Your task to perform on an android device: Show me recent news Image 0: 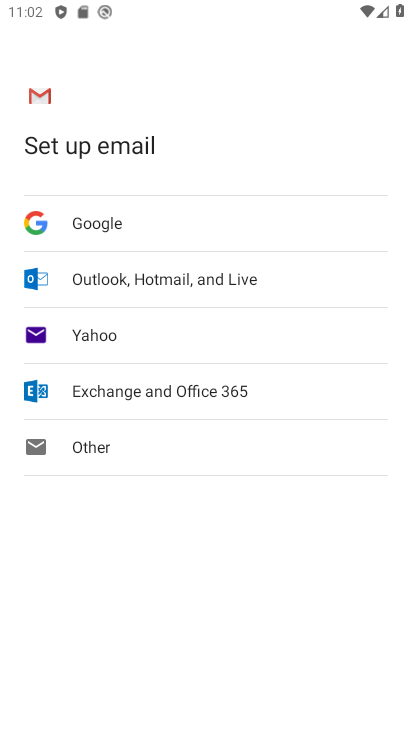
Step 0: press home button
Your task to perform on an android device: Show me recent news Image 1: 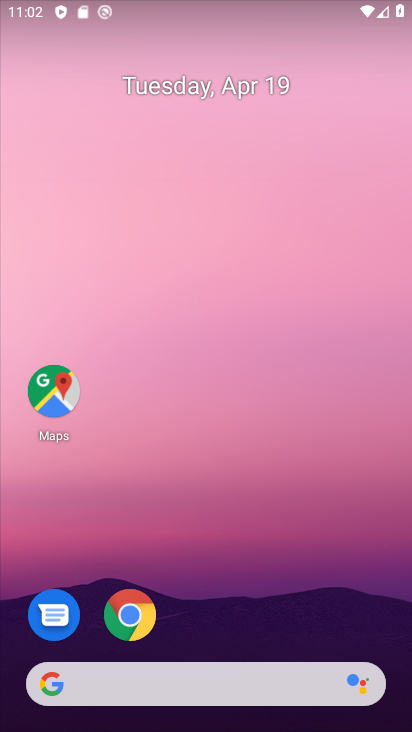
Step 1: drag from (233, 608) to (259, 170)
Your task to perform on an android device: Show me recent news Image 2: 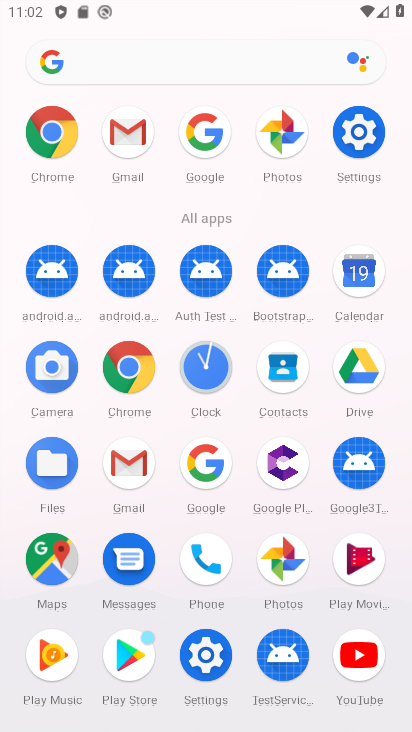
Step 2: click (187, 462)
Your task to perform on an android device: Show me recent news Image 3: 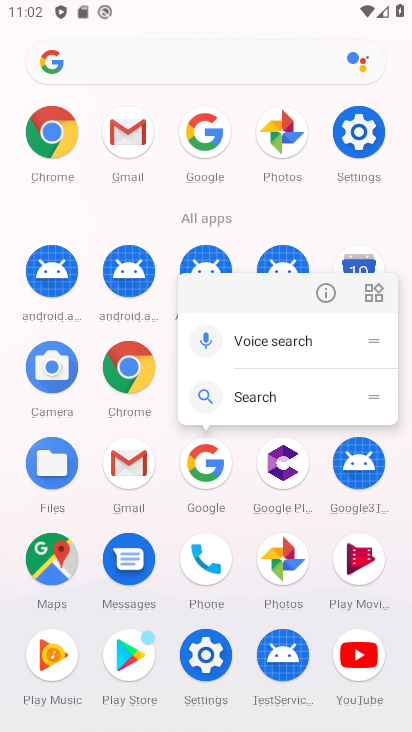
Step 3: click (209, 451)
Your task to perform on an android device: Show me recent news Image 4: 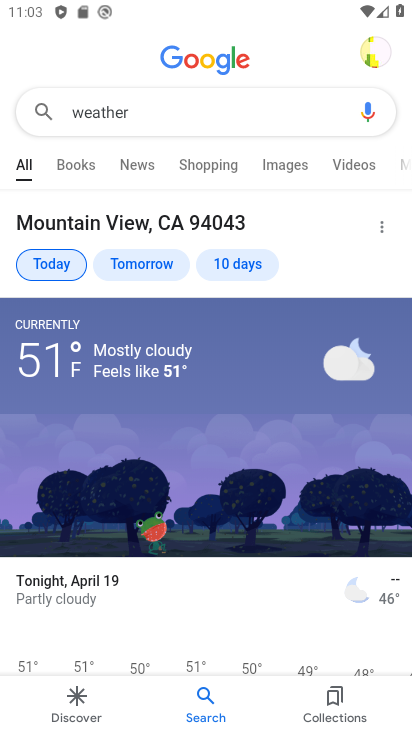
Step 4: drag from (217, 594) to (229, 295)
Your task to perform on an android device: Show me recent news Image 5: 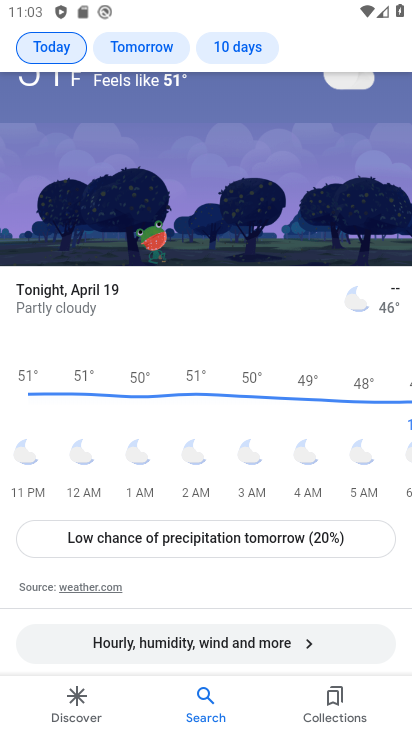
Step 5: drag from (238, 207) to (261, 411)
Your task to perform on an android device: Show me recent news Image 6: 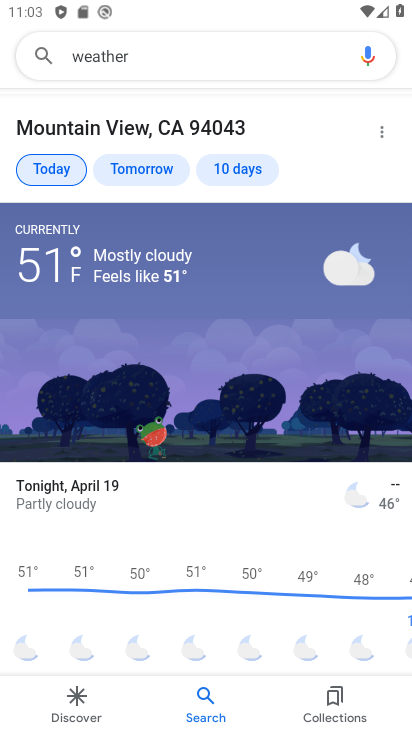
Step 6: drag from (268, 278) to (268, 398)
Your task to perform on an android device: Show me recent news Image 7: 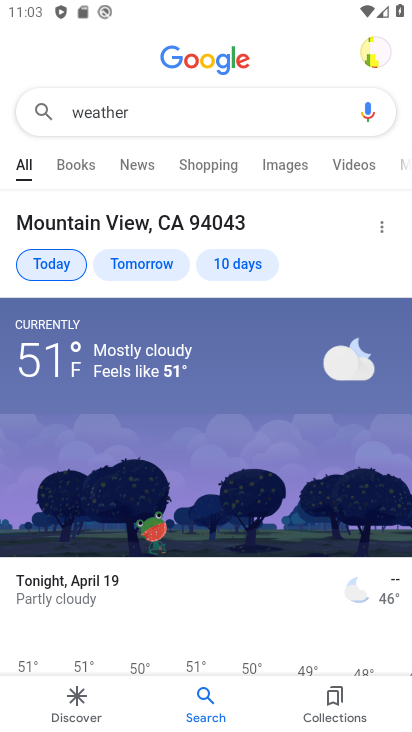
Step 7: click (132, 169)
Your task to perform on an android device: Show me recent news Image 8: 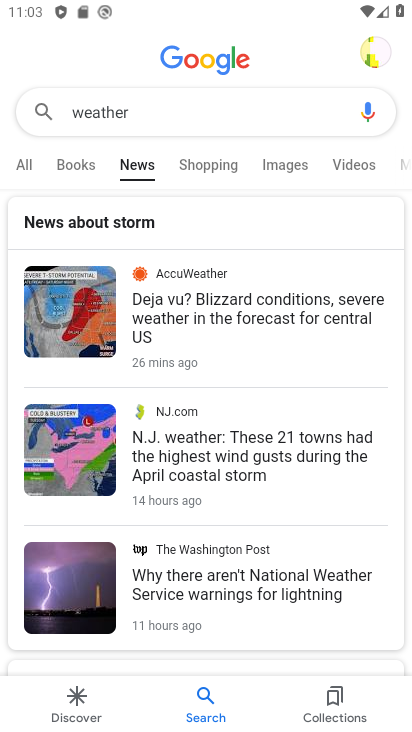
Step 8: task complete